Your task to perform on an android device: Set the phone to "Do not disturb". Image 0: 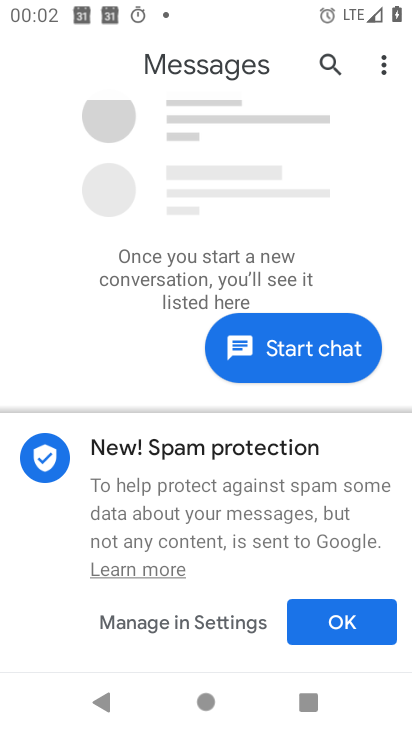
Step 0: press home button
Your task to perform on an android device: Set the phone to "Do not disturb". Image 1: 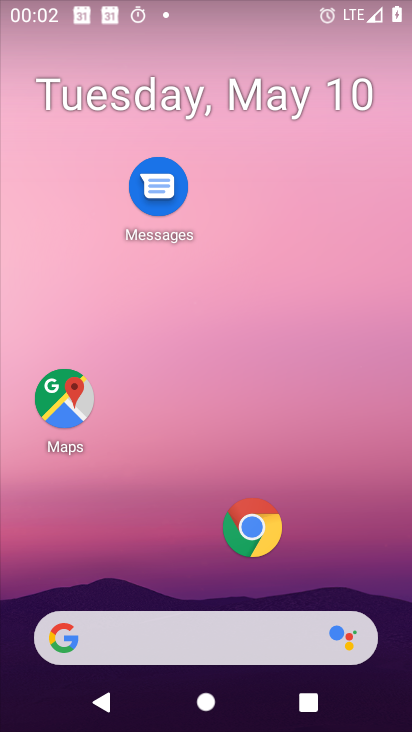
Step 1: drag from (180, 565) to (244, 99)
Your task to perform on an android device: Set the phone to "Do not disturb". Image 2: 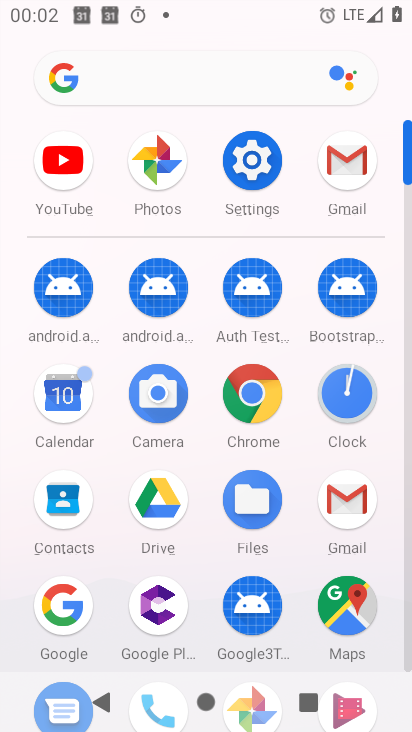
Step 2: click (254, 168)
Your task to perform on an android device: Set the phone to "Do not disturb". Image 3: 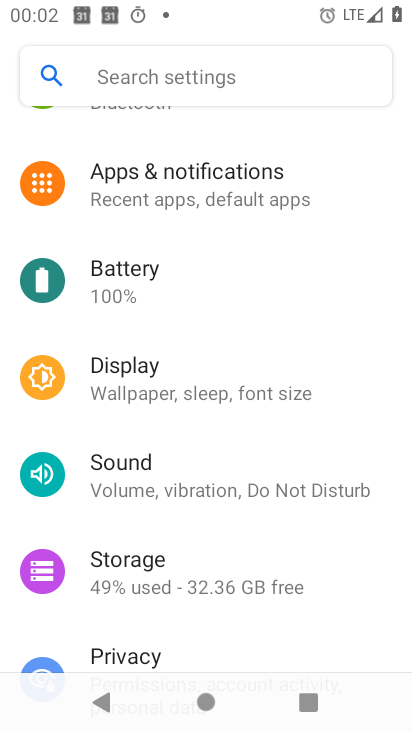
Step 3: click (205, 473)
Your task to perform on an android device: Set the phone to "Do not disturb". Image 4: 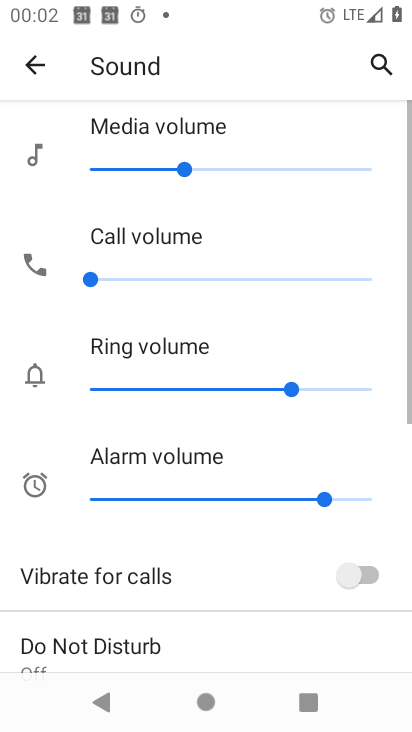
Step 4: drag from (221, 535) to (236, 228)
Your task to perform on an android device: Set the phone to "Do not disturb". Image 5: 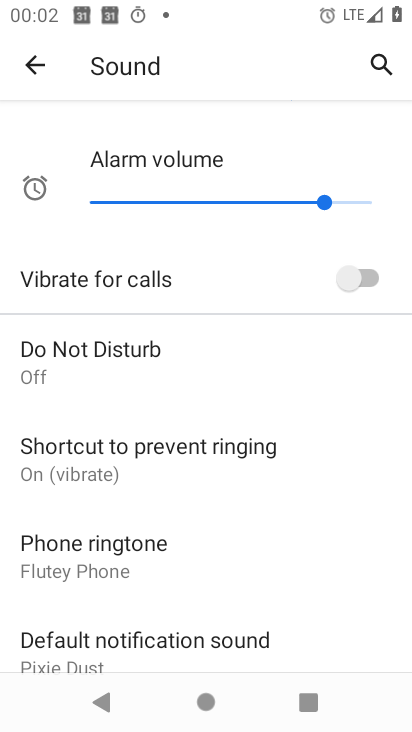
Step 5: click (150, 360)
Your task to perform on an android device: Set the phone to "Do not disturb". Image 6: 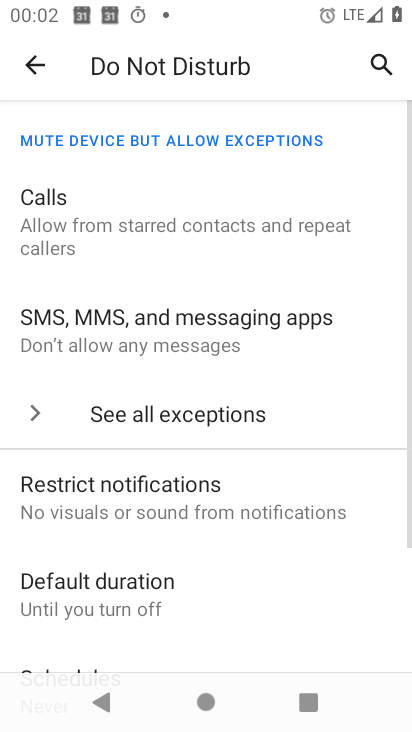
Step 6: drag from (241, 479) to (227, 69)
Your task to perform on an android device: Set the phone to "Do not disturb". Image 7: 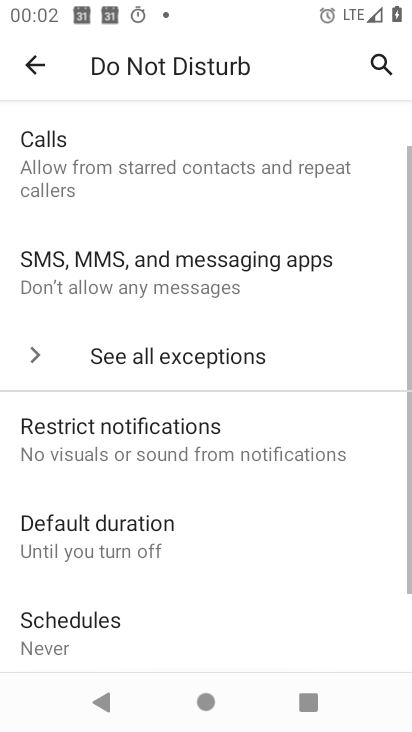
Step 7: click (164, 640)
Your task to perform on an android device: Set the phone to "Do not disturb". Image 8: 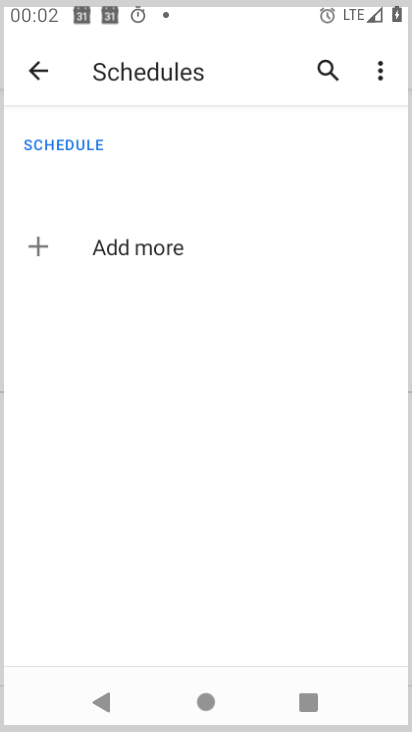
Step 8: drag from (165, 637) to (159, 301)
Your task to perform on an android device: Set the phone to "Do not disturb". Image 9: 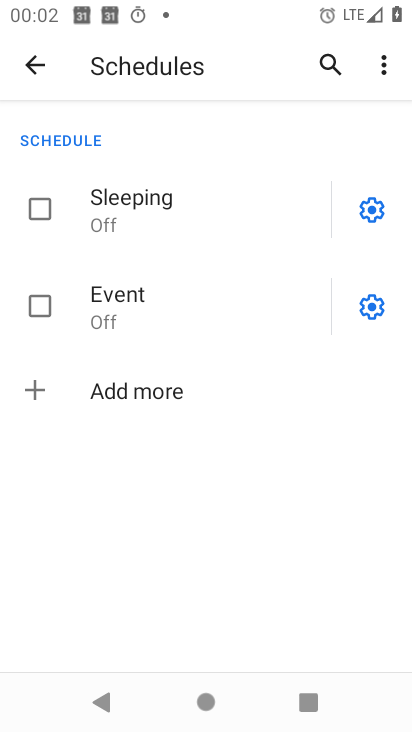
Step 9: press back button
Your task to perform on an android device: Set the phone to "Do not disturb". Image 10: 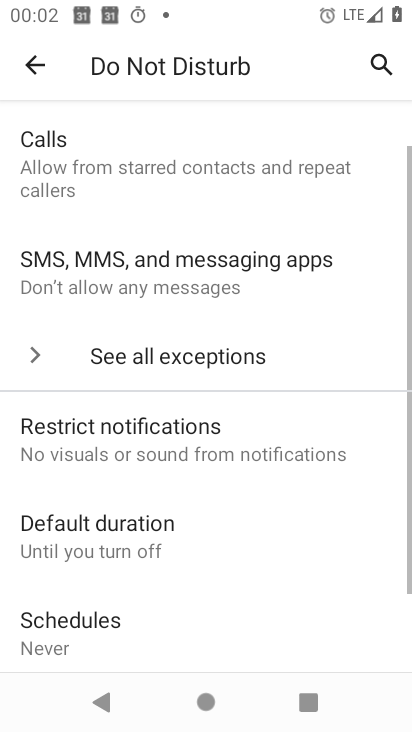
Step 10: drag from (192, 627) to (201, 139)
Your task to perform on an android device: Set the phone to "Do not disturb". Image 11: 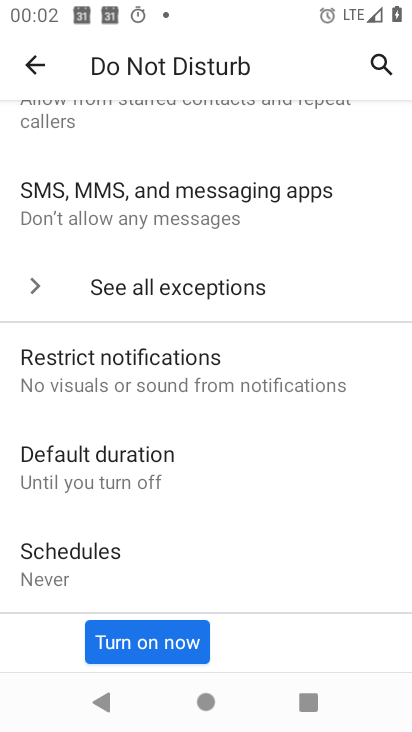
Step 11: click (158, 641)
Your task to perform on an android device: Set the phone to "Do not disturb". Image 12: 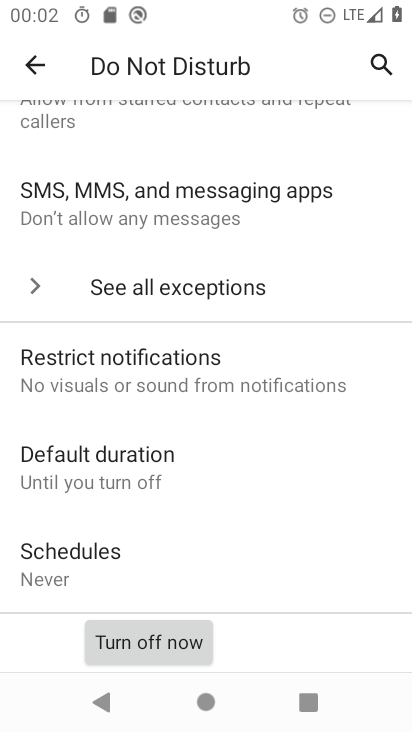
Step 12: task complete